Your task to perform on an android device: Show me recent news Image 0: 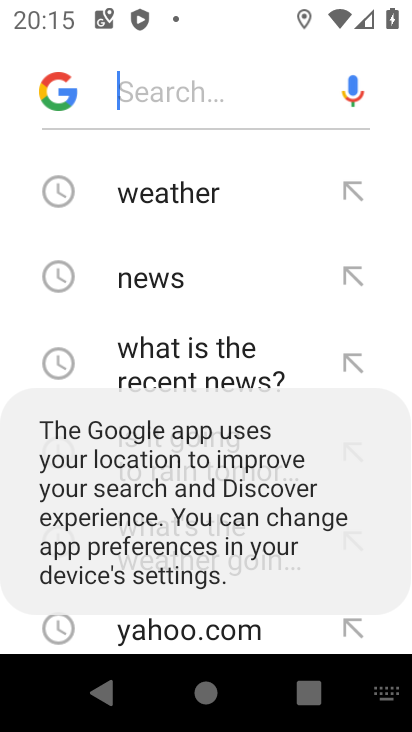
Step 0: press home button
Your task to perform on an android device: Show me recent news Image 1: 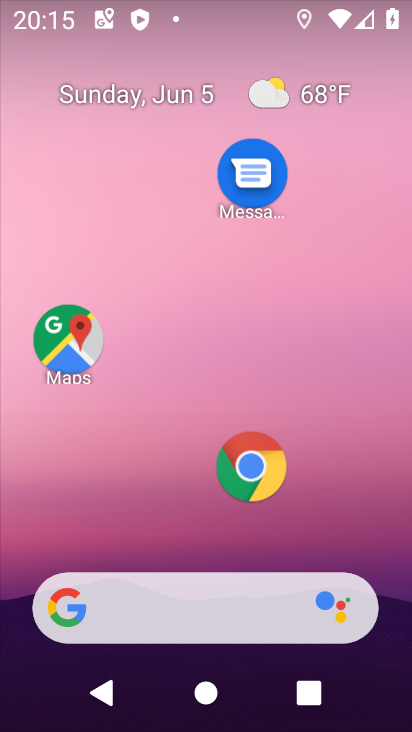
Step 1: drag from (170, 532) to (193, 18)
Your task to perform on an android device: Show me recent news Image 2: 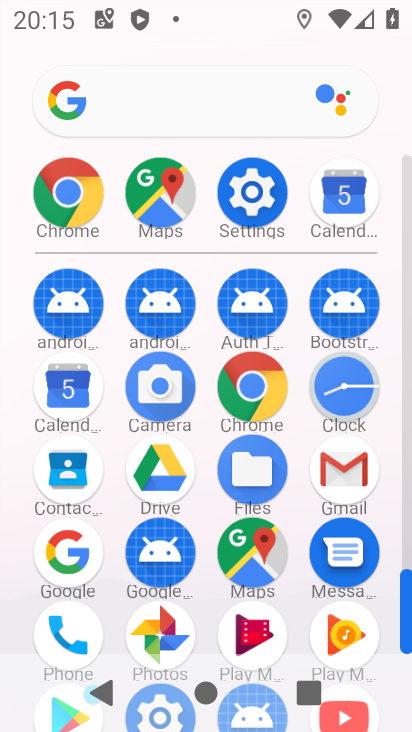
Step 2: click (157, 111)
Your task to perform on an android device: Show me recent news Image 3: 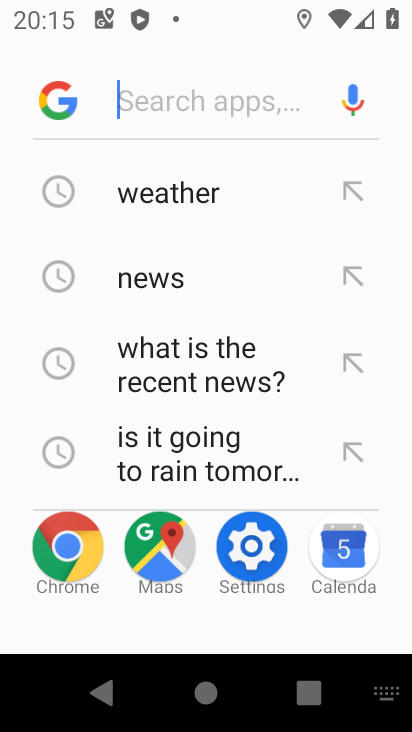
Step 3: type "recent news"
Your task to perform on an android device: Show me recent news Image 4: 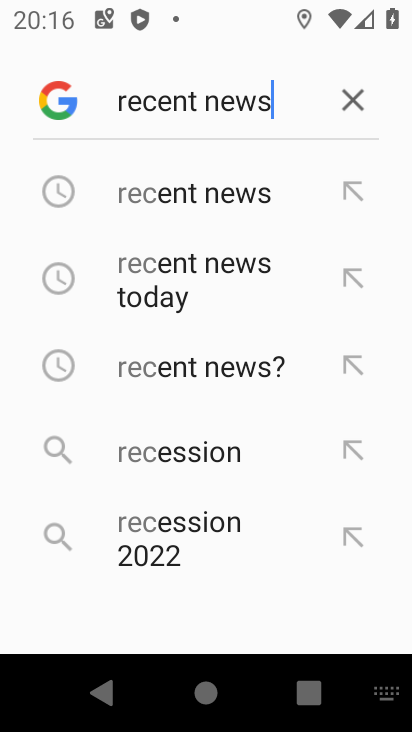
Step 4: type ""
Your task to perform on an android device: Show me recent news Image 5: 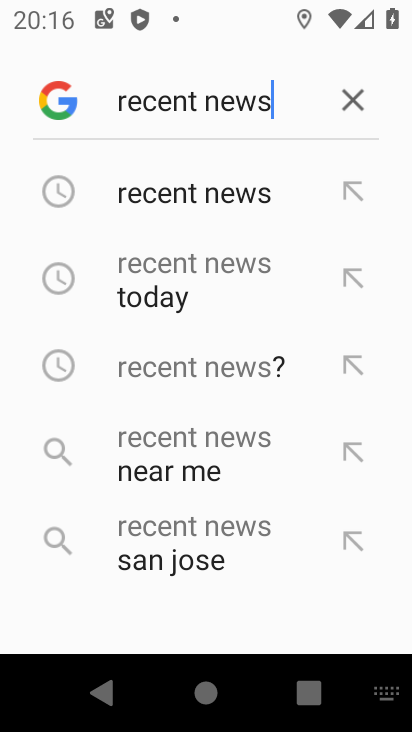
Step 5: click (227, 186)
Your task to perform on an android device: Show me recent news Image 6: 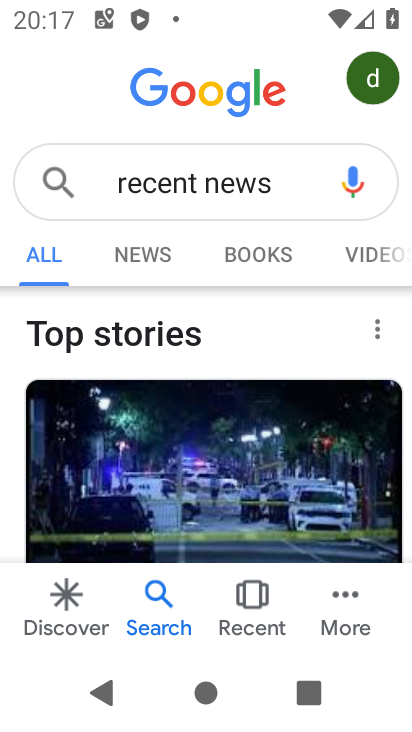
Step 6: task complete